Your task to perform on an android device: change the upload size in google photos Image 0: 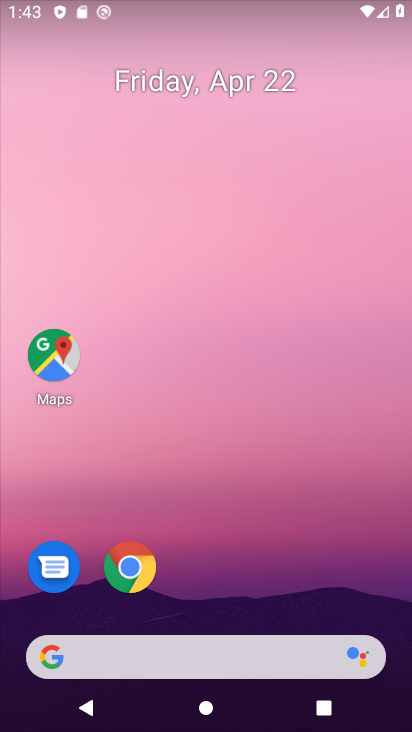
Step 0: drag from (243, 453) to (258, 63)
Your task to perform on an android device: change the upload size in google photos Image 1: 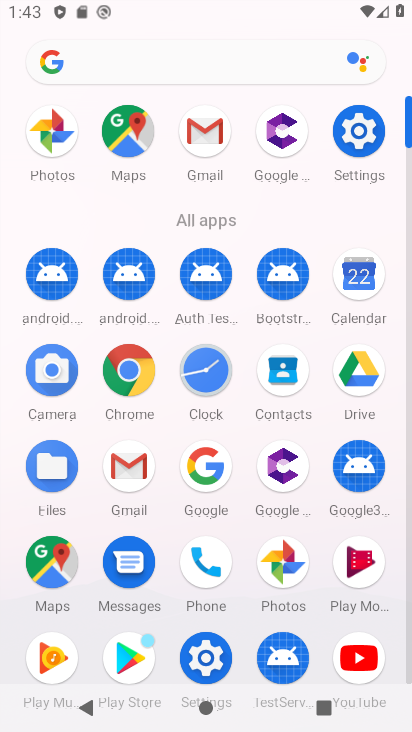
Step 1: click (47, 146)
Your task to perform on an android device: change the upload size in google photos Image 2: 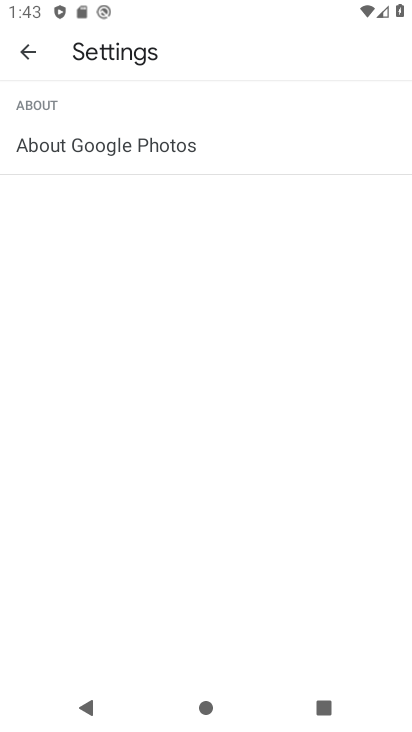
Step 2: click (26, 52)
Your task to perform on an android device: change the upload size in google photos Image 3: 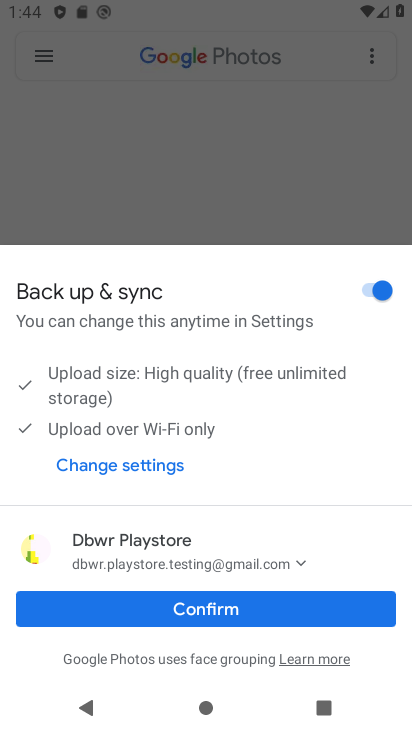
Step 3: click (207, 612)
Your task to perform on an android device: change the upload size in google photos Image 4: 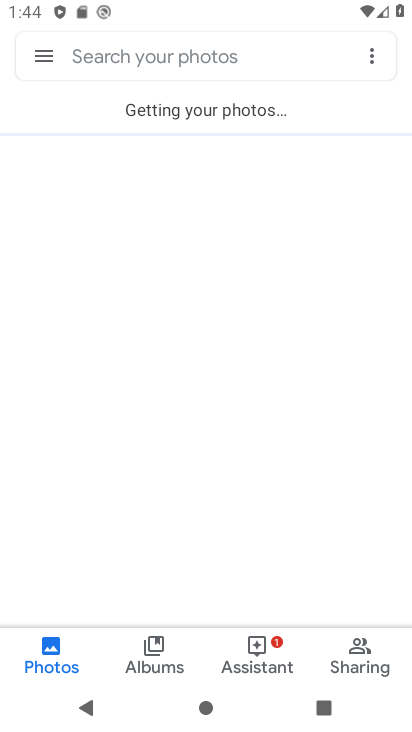
Step 4: click (45, 62)
Your task to perform on an android device: change the upload size in google photos Image 5: 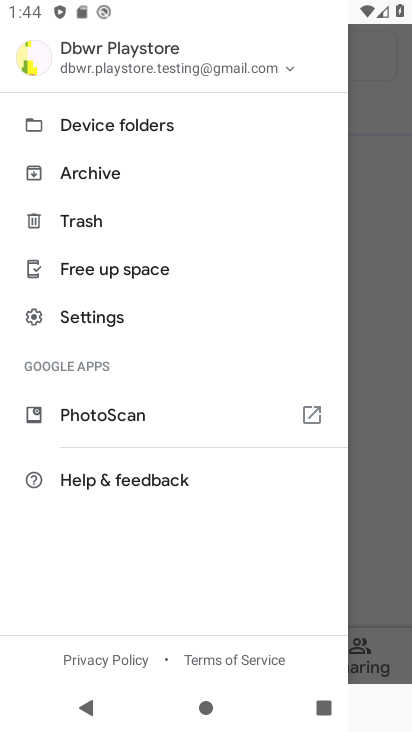
Step 5: click (141, 323)
Your task to perform on an android device: change the upload size in google photos Image 6: 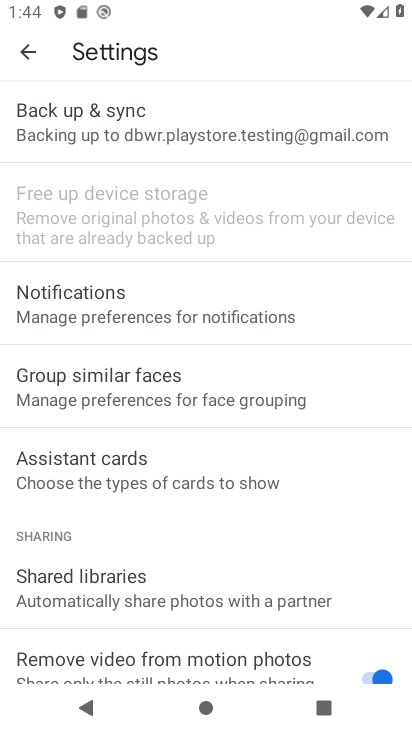
Step 6: click (220, 126)
Your task to perform on an android device: change the upload size in google photos Image 7: 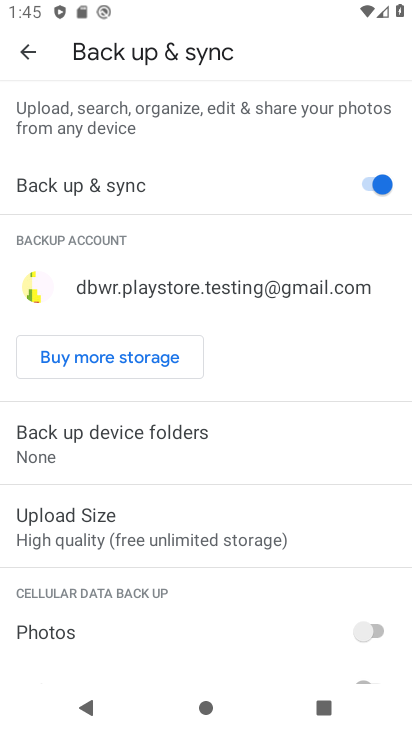
Step 7: click (166, 530)
Your task to perform on an android device: change the upload size in google photos Image 8: 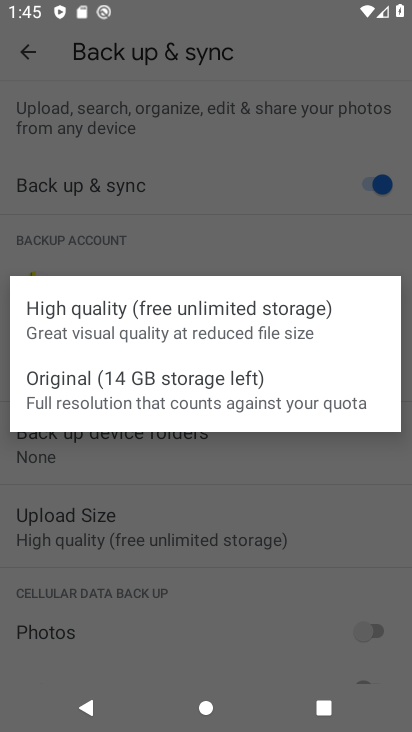
Step 8: click (269, 392)
Your task to perform on an android device: change the upload size in google photos Image 9: 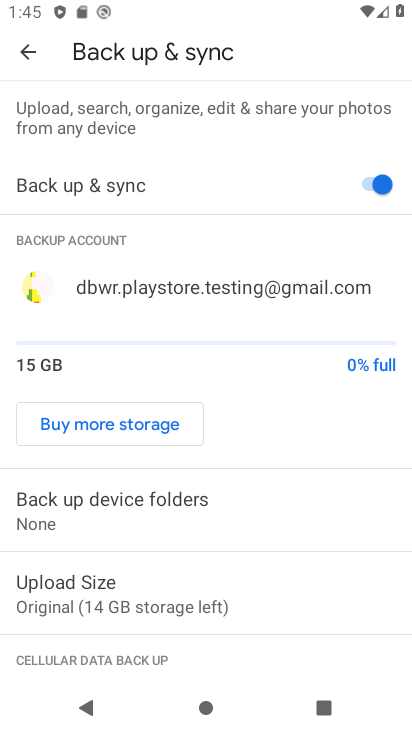
Step 9: task complete